Your task to perform on an android device: toggle location history Image 0: 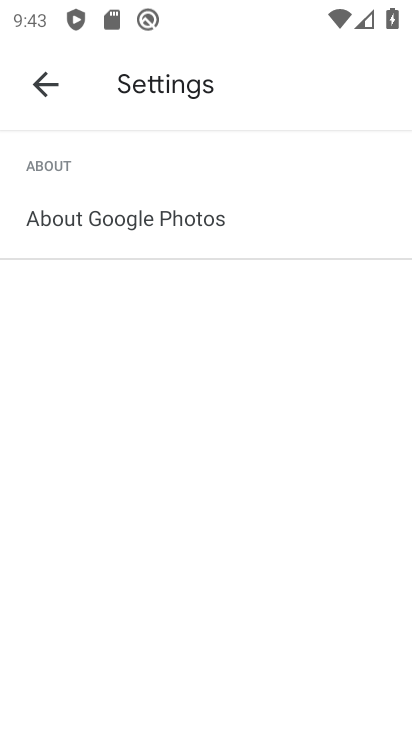
Step 0: press back button
Your task to perform on an android device: toggle location history Image 1: 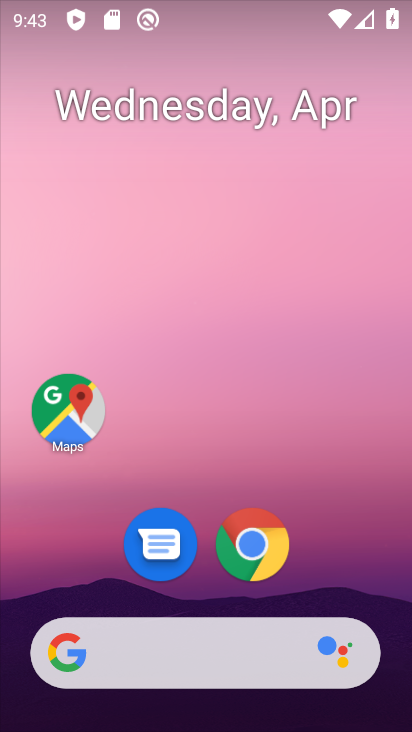
Step 1: click (58, 424)
Your task to perform on an android device: toggle location history Image 2: 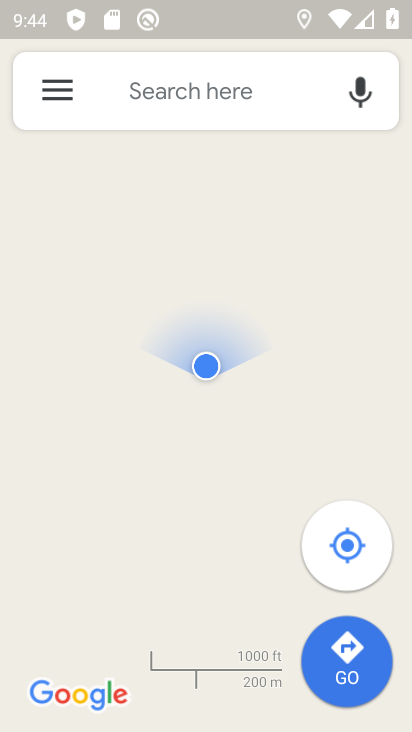
Step 2: click (54, 100)
Your task to perform on an android device: toggle location history Image 3: 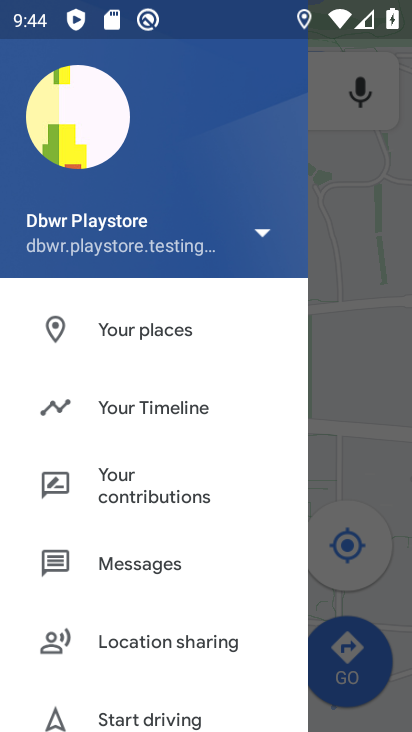
Step 3: click (200, 413)
Your task to perform on an android device: toggle location history Image 4: 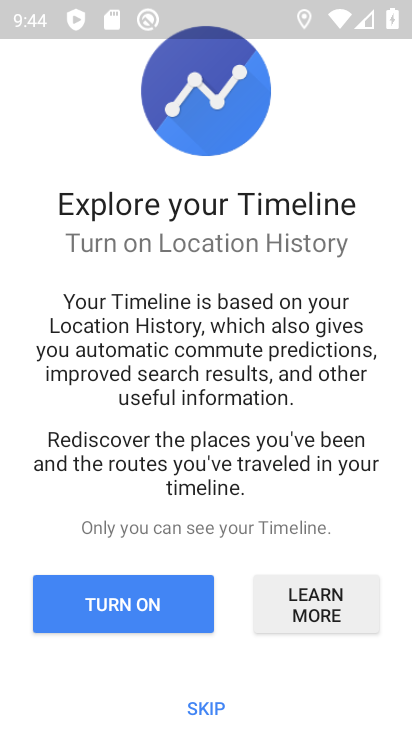
Step 4: click (211, 705)
Your task to perform on an android device: toggle location history Image 5: 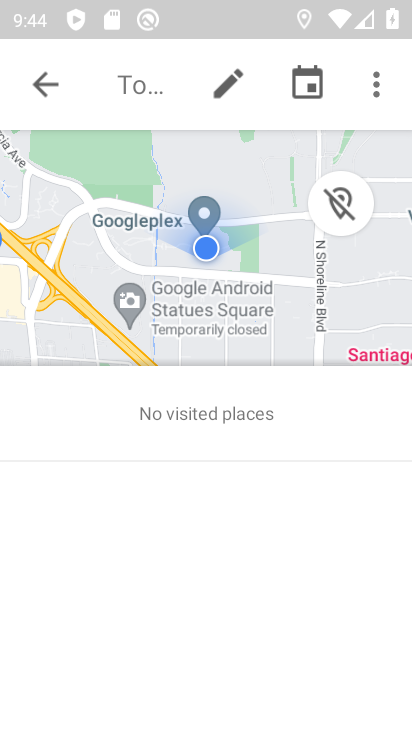
Step 5: click (368, 90)
Your task to perform on an android device: toggle location history Image 6: 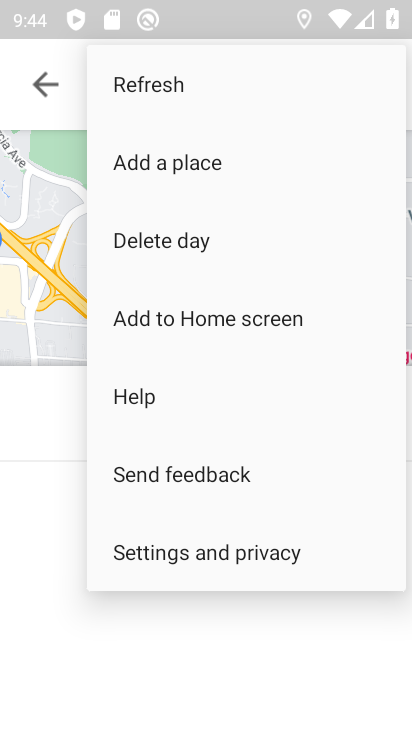
Step 6: click (208, 555)
Your task to perform on an android device: toggle location history Image 7: 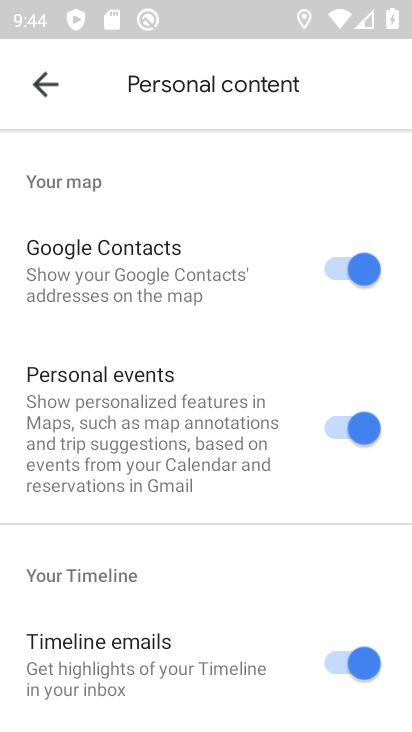
Step 7: drag from (214, 627) to (226, 154)
Your task to perform on an android device: toggle location history Image 8: 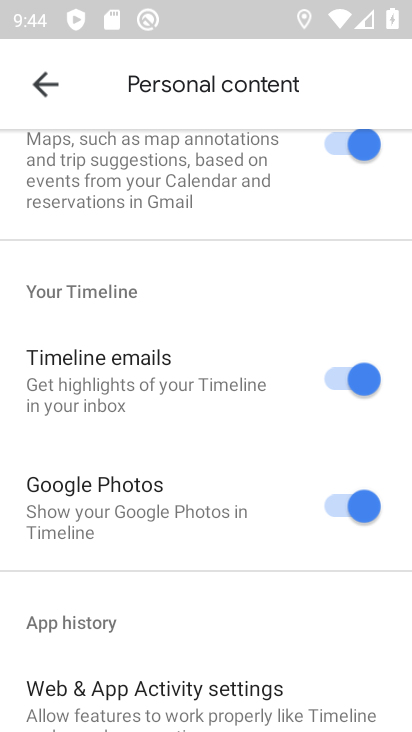
Step 8: drag from (291, 594) to (184, 219)
Your task to perform on an android device: toggle location history Image 9: 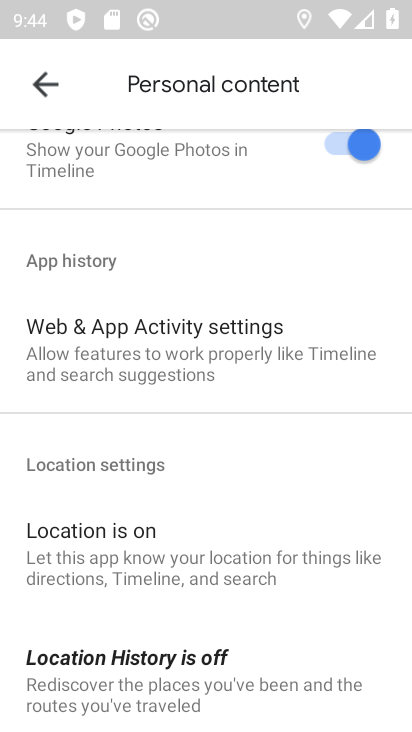
Step 9: drag from (216, 518) to (211, 345)
Your task to perform on an android device: toggle location history Image 10: 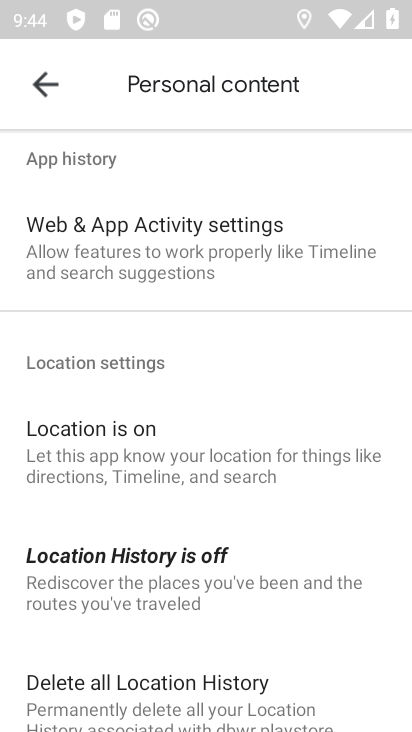
Step 10: click (261, 560)
Your task to perform on an android device: toggle location history Image 11: 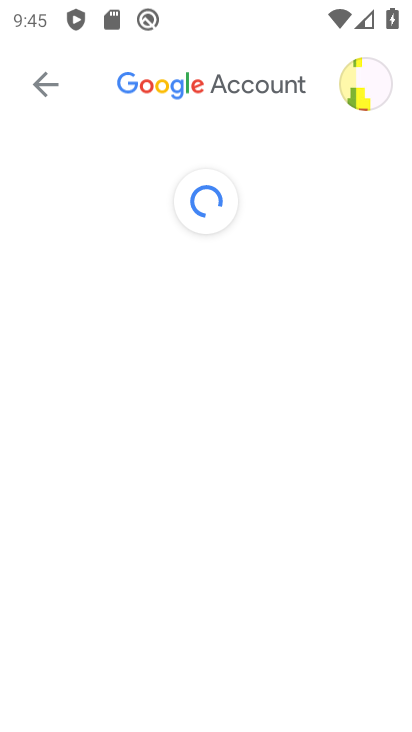
Step 11: drag from (259, 637) to (187, 199)
Your task to perform on an android device: toggle location history Image 12: 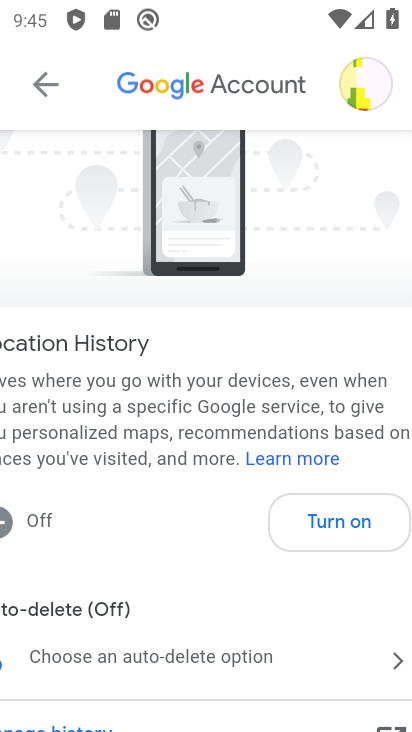
Step 12: click (354, 530)
Your task to perform on an android device: toggle location history Image 13: 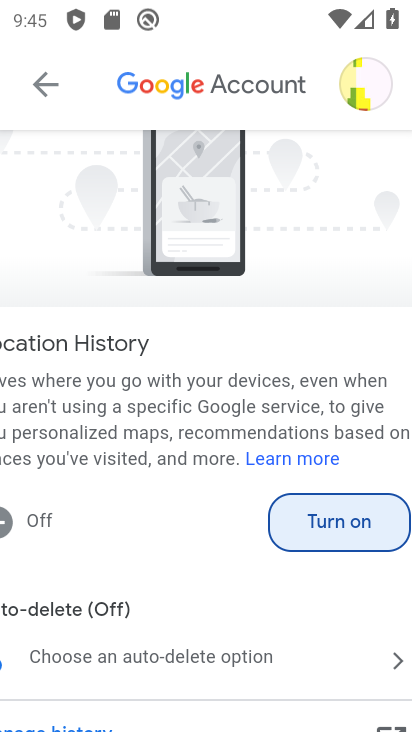
Step 13: click (358, 521)
Your task to perform on an android device: toggle location history Image 14: 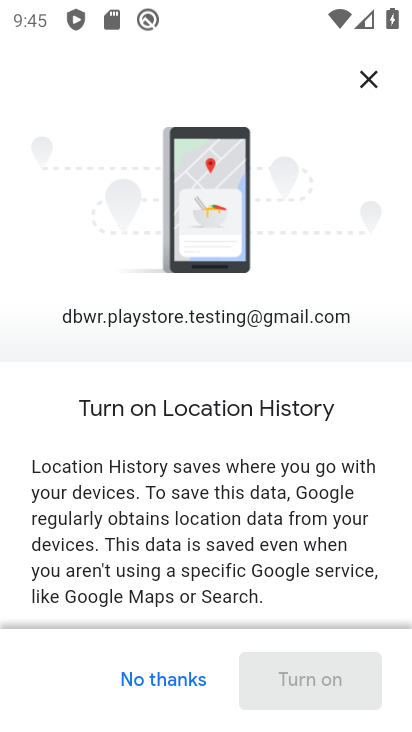
Step 14: drag from (260, 555) to (280, 130)
Your task to perform on an android device: toggle location history Image 15: 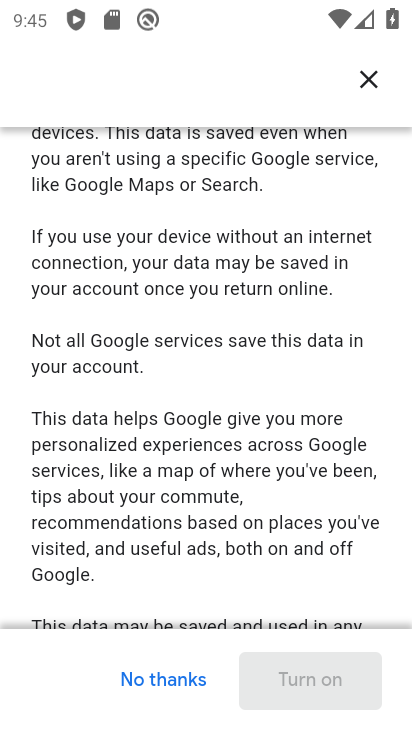
Step 15: drag from (331, 563) to (277, 226)
Your task to perform on an android device: toggle location history Image 16: 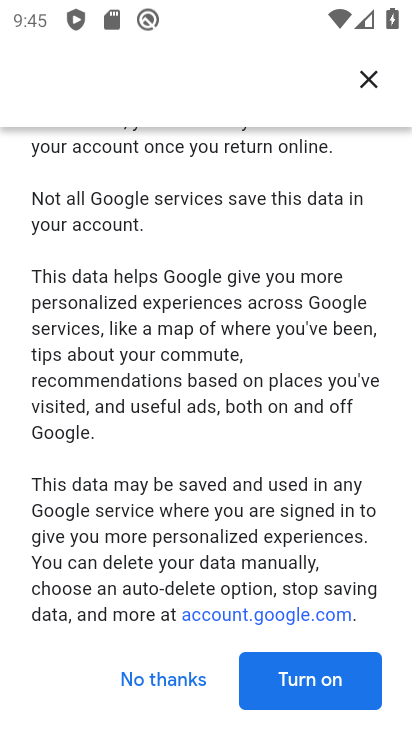
Step 16: click (332, 681)
Your task to perform on an android device: toggle location history Image 17: 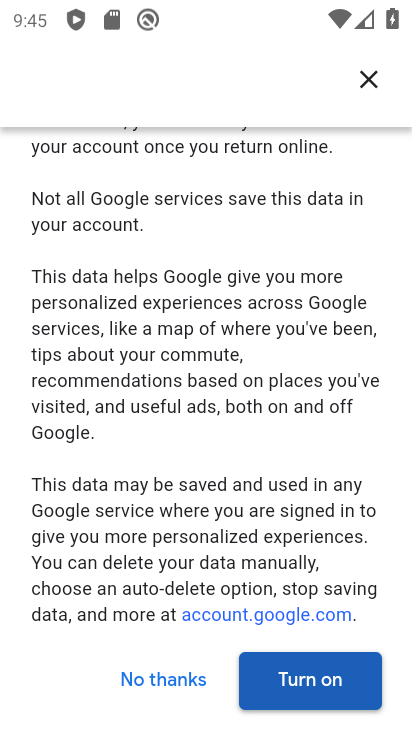
Step 17: click (332, 681)
Your task to perform on an android device: toggle location history Image 18: 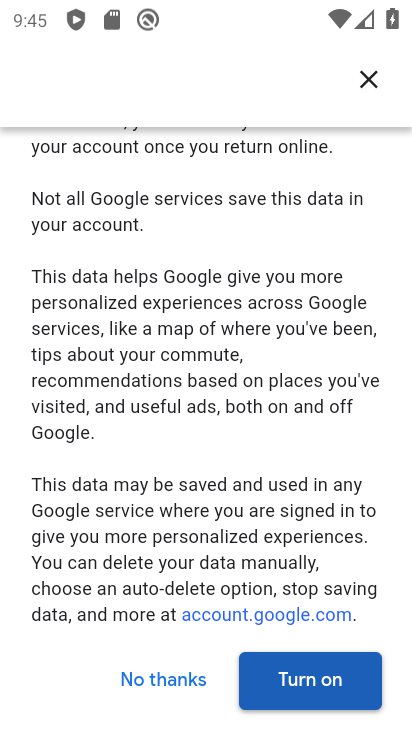
Step 18: drag from (280, 600) to (305, 315)
Your task to perform on an android device: toggle location history Image 19: 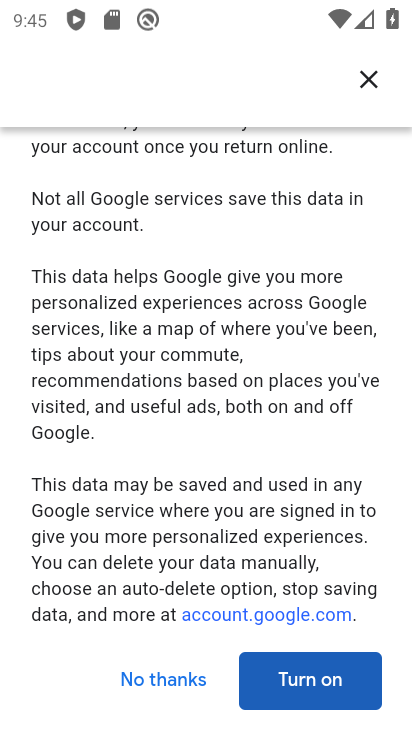
Step 19: click (329, 666)
Your task to perform on an android device: toggle location history Image 20: 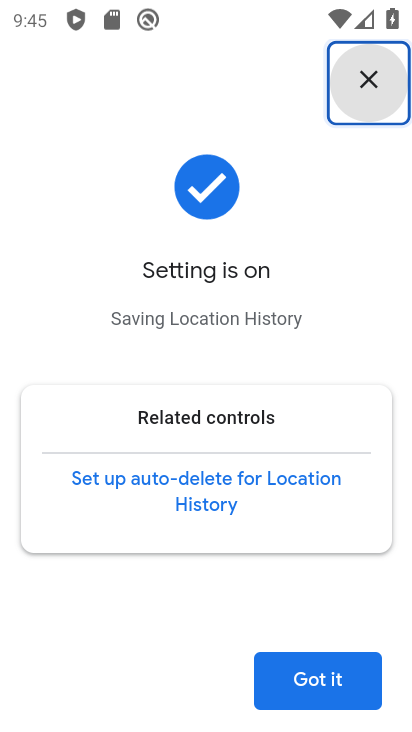
Step 20: click (329, 666)
Your task to perform on an android device: toggle location history Image 21: 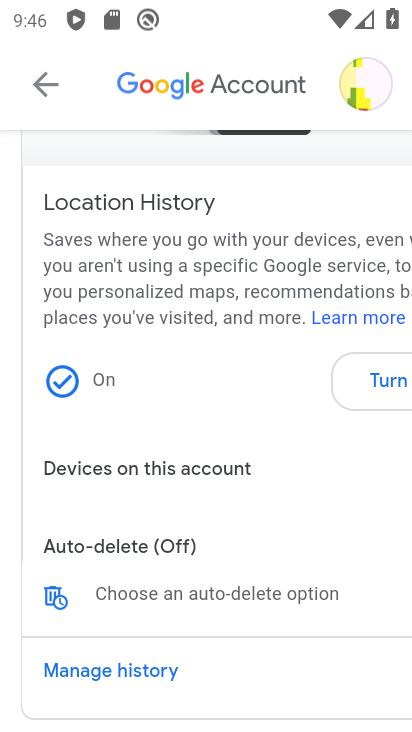
Step 21: task complete